Your task to perform on an android device: open app "The Home Depot" (install if not already installed) Image 0: 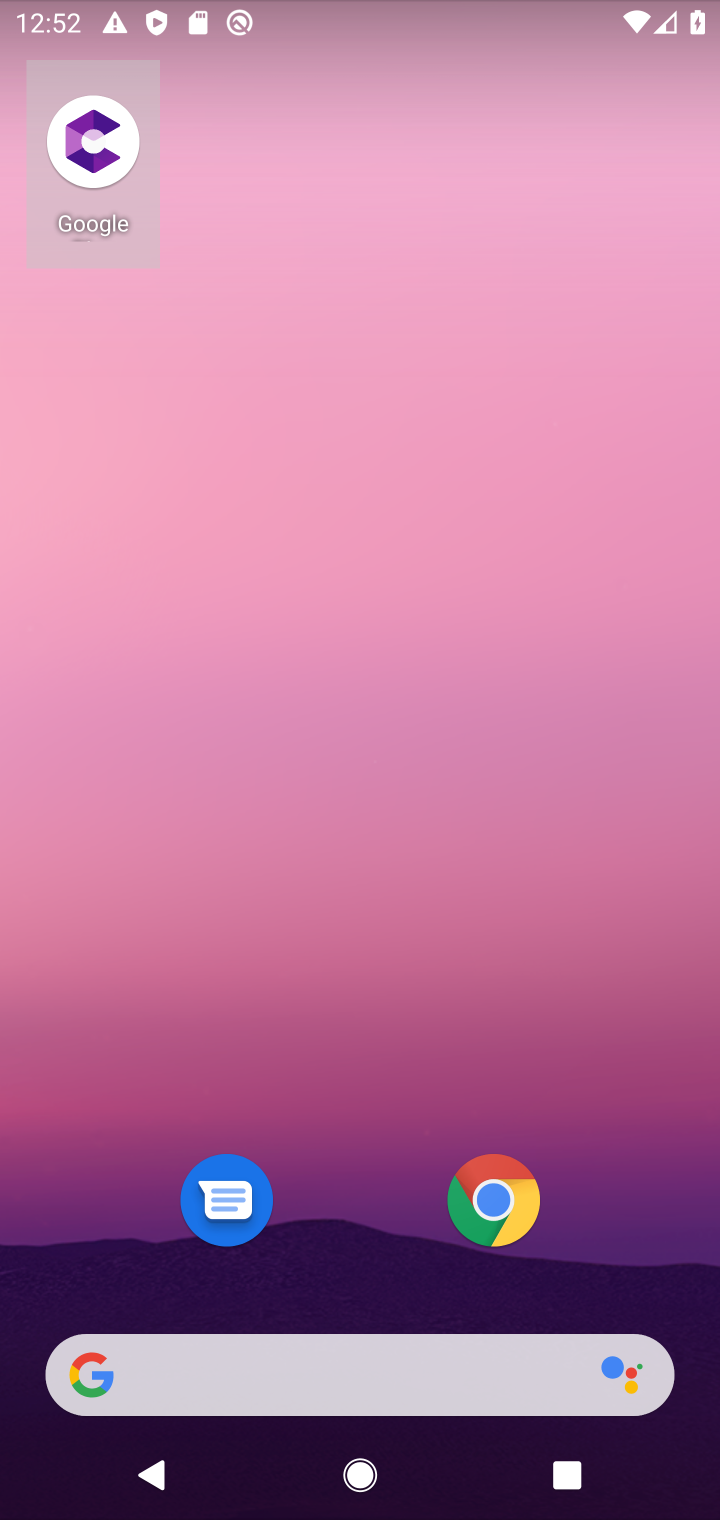
Step 0: drag from (668, 569) to (701, 69)
Your task to perform on an android device: open app "The Home Depot" (install if not already installed) Image 1: 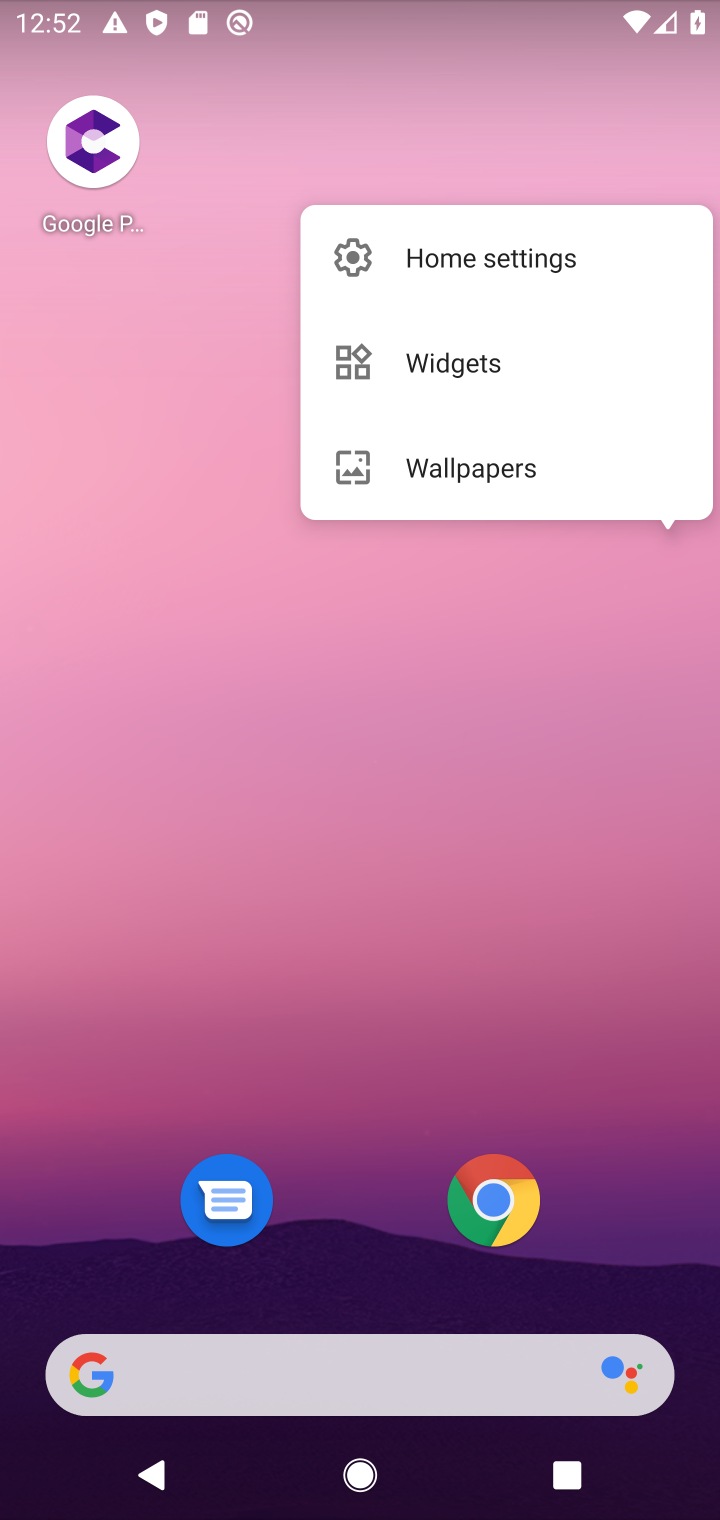
Step 1: click (621, 1060)
Your task to perform on an android device: open app "The Home Depot" (install if not already installed) Image 2: 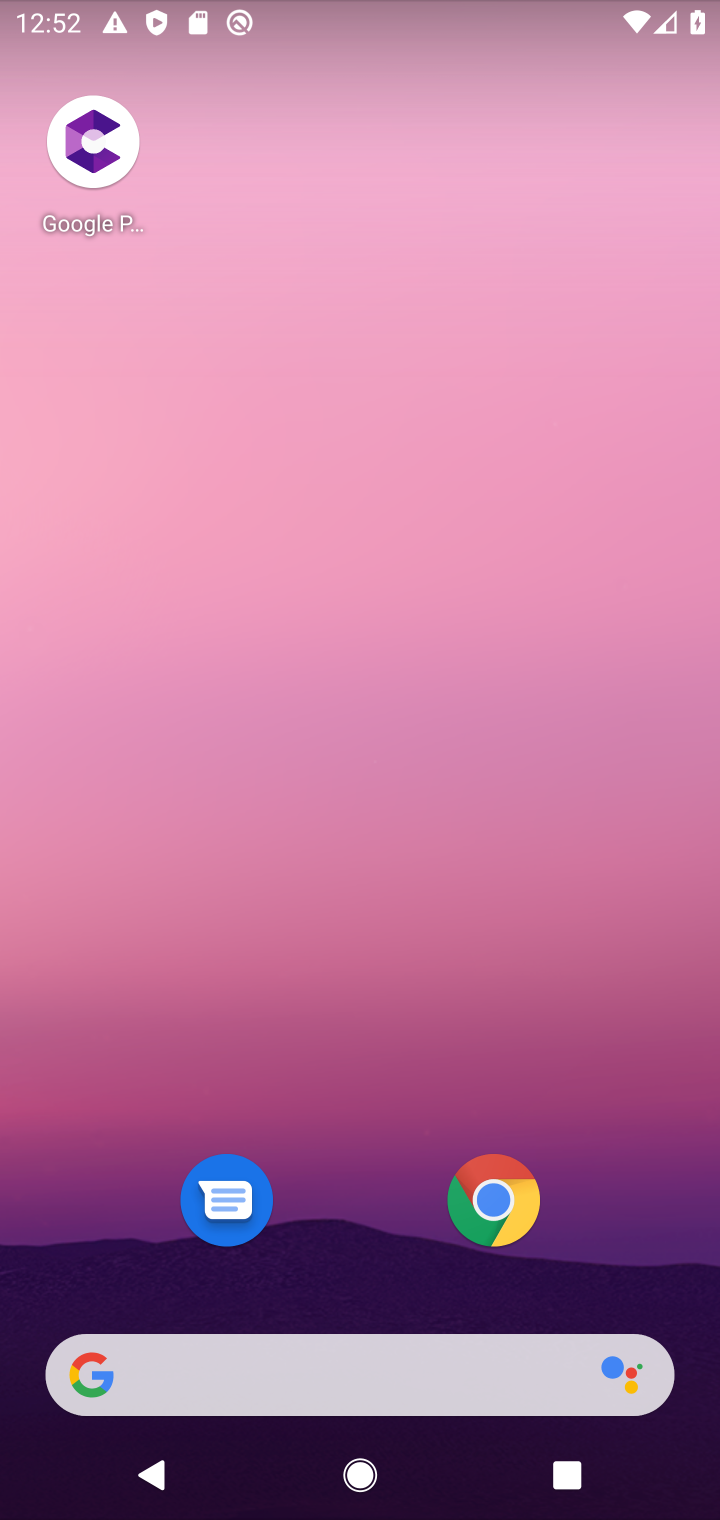
Step 2: drag from (625, 1160) to (599, 61)
Your task to perform on an android device: open app "The Home Depot" (install if not already installed) Image 3: 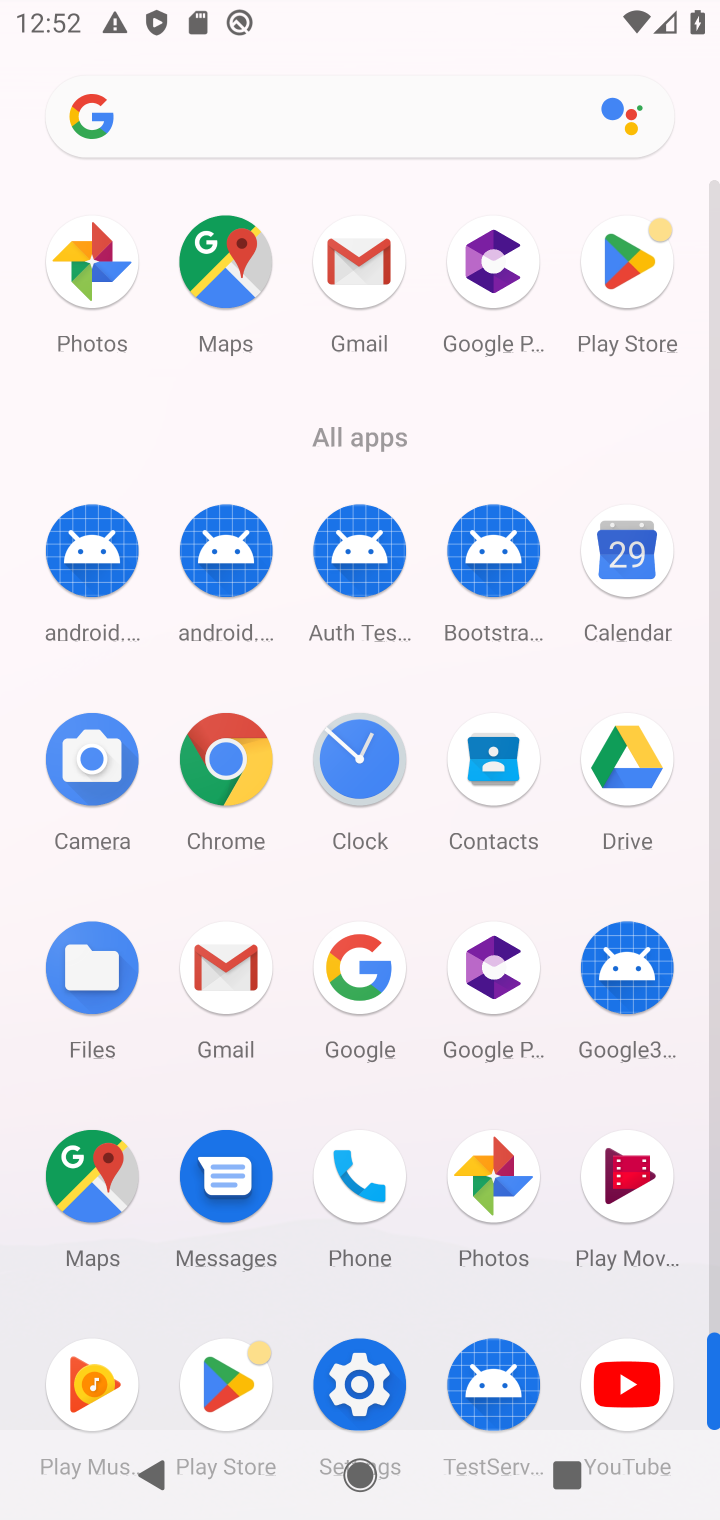
Step 3: click (628, 267)
Your task to perform on an android device: open app "The Home Depot" (install if not already installed) Image 4: 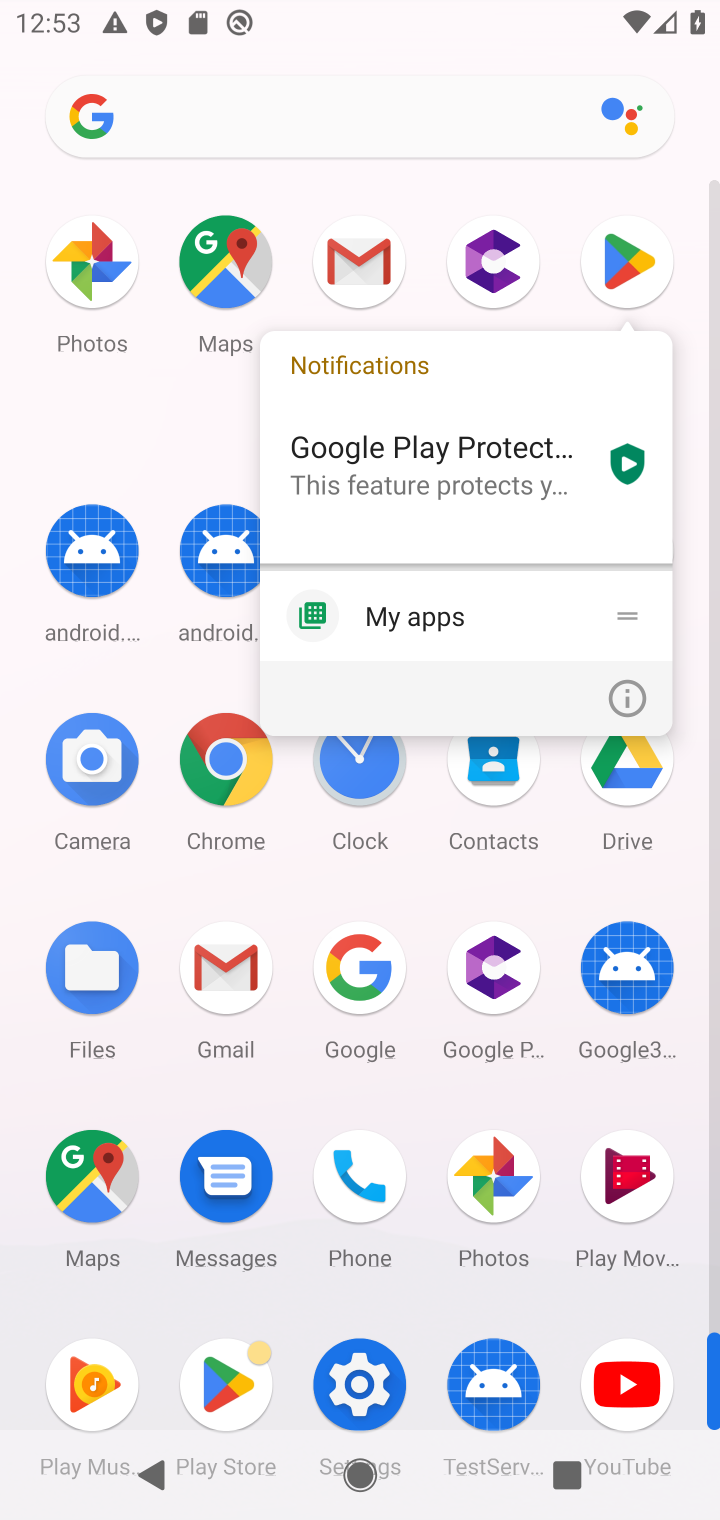
Step 4: click (613, 243)
Your task to perform on an android device: open app "The Home Depot" (install if not already installed) Image 5: 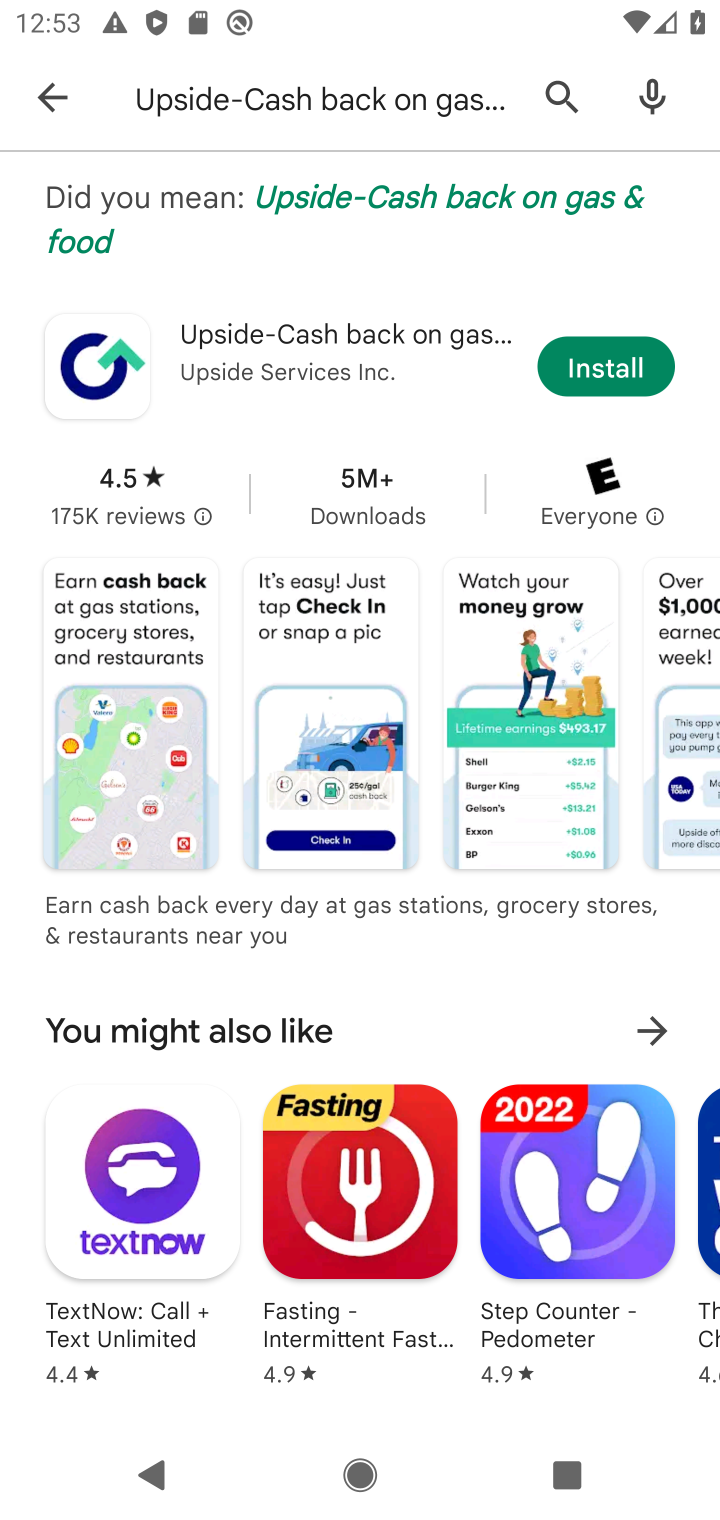
Step 5: click (384, 76)
Your task to perform on an android device: open app "The Home Depot" (install if not already installed) Image 6: 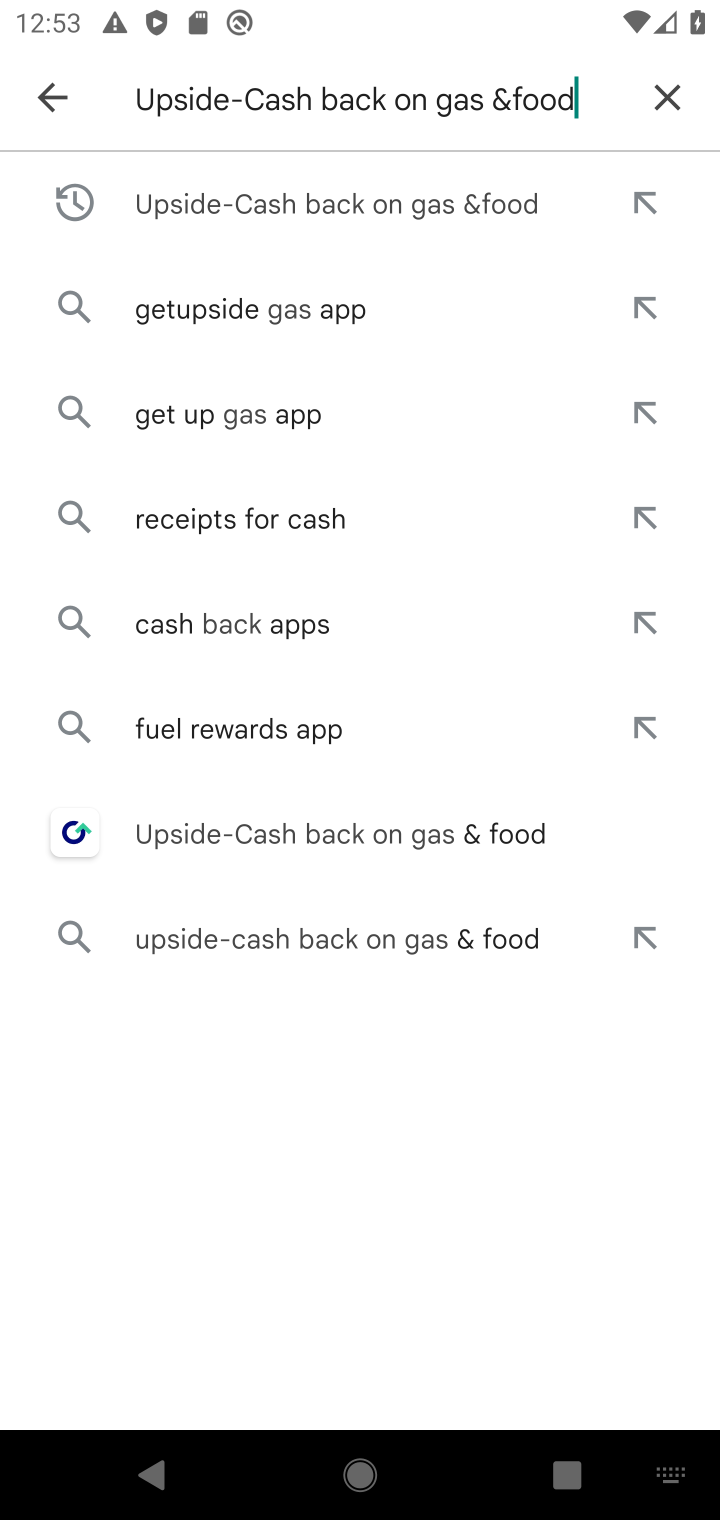
Step 6: click (669, 86)
Your task to perform on an android device: open app "The Home Depot" (install if not already installed) Image 7: 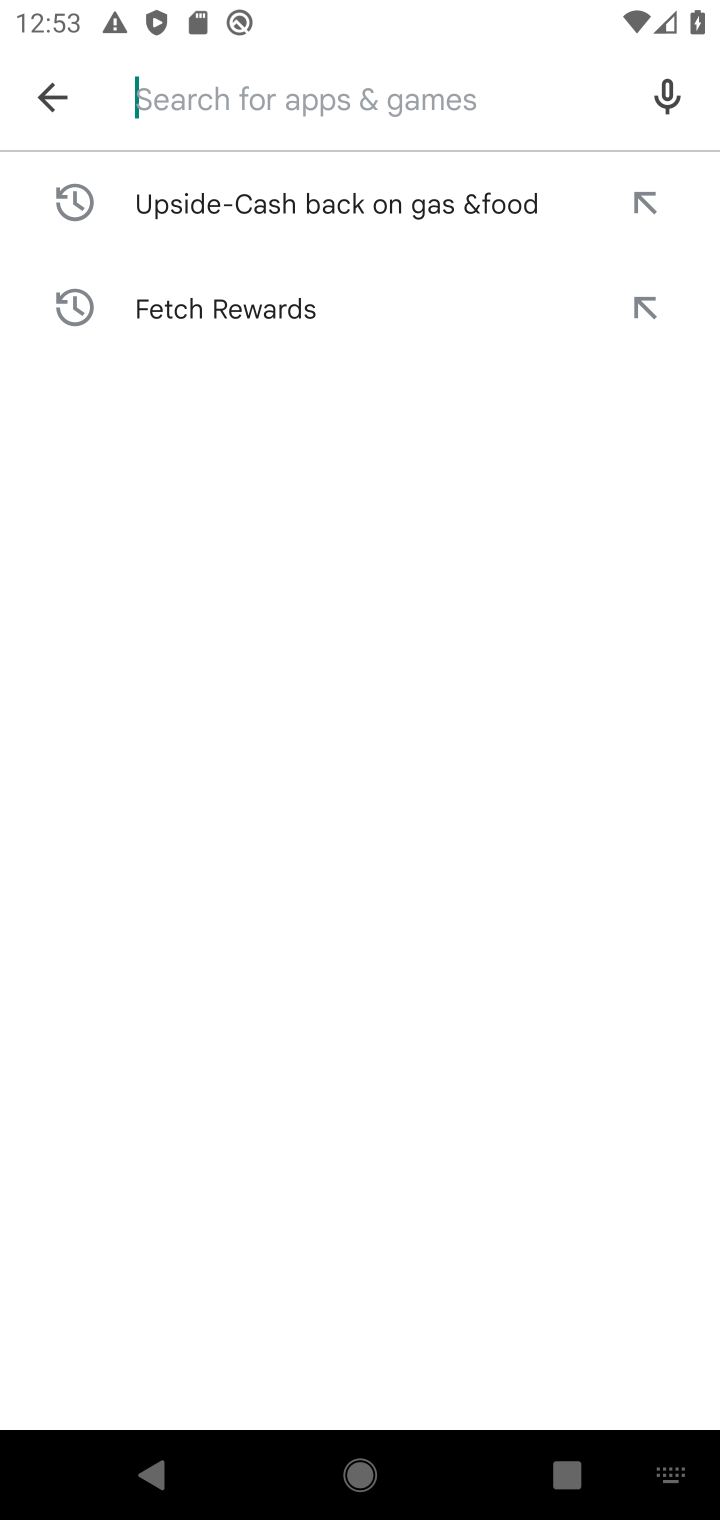
Step 7: type "The Home Depot"
Your task to perform on an android device: open app "The Home Depot" (install if not already installed) Image 8: 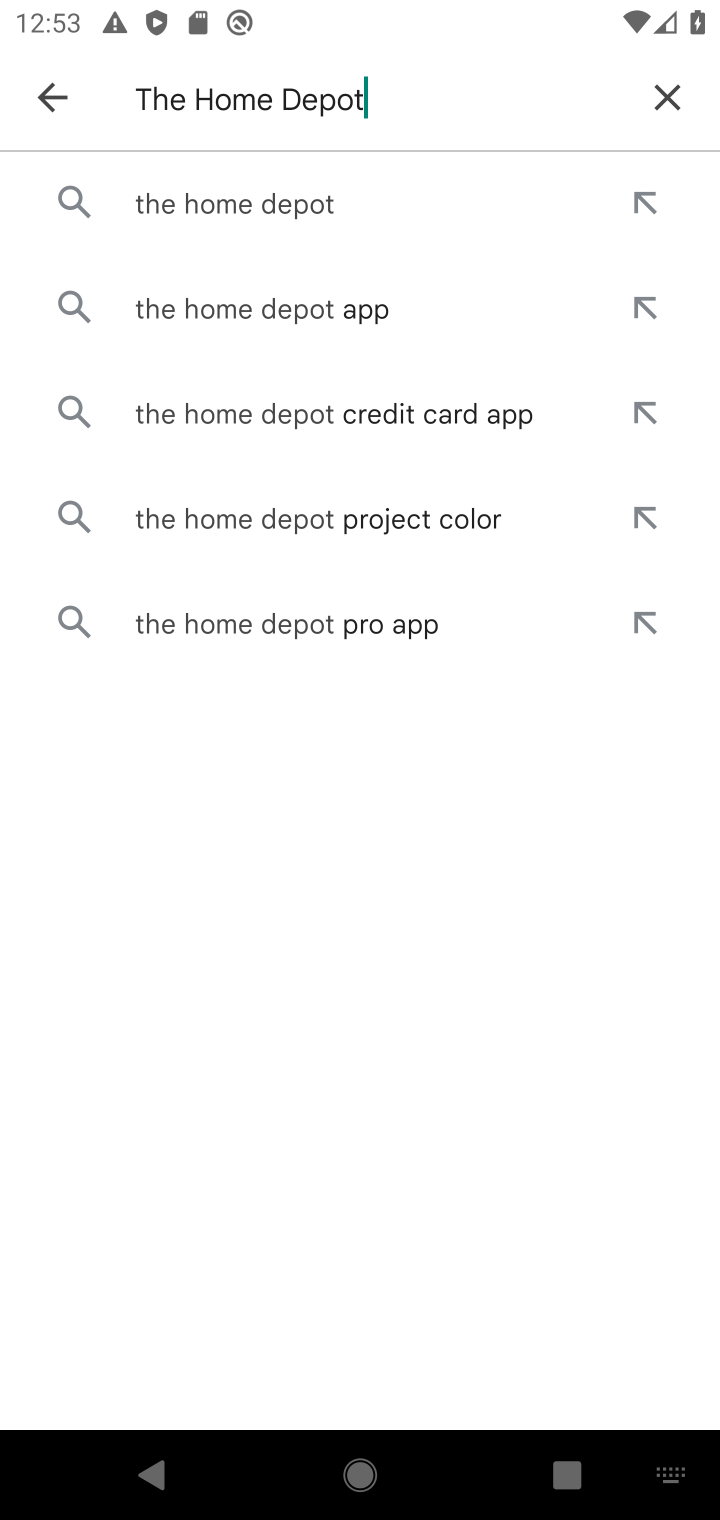
Step 8: press enter
Your task to perform on an android device: open app "The Home Depot" (install if not already installed) Image 9: 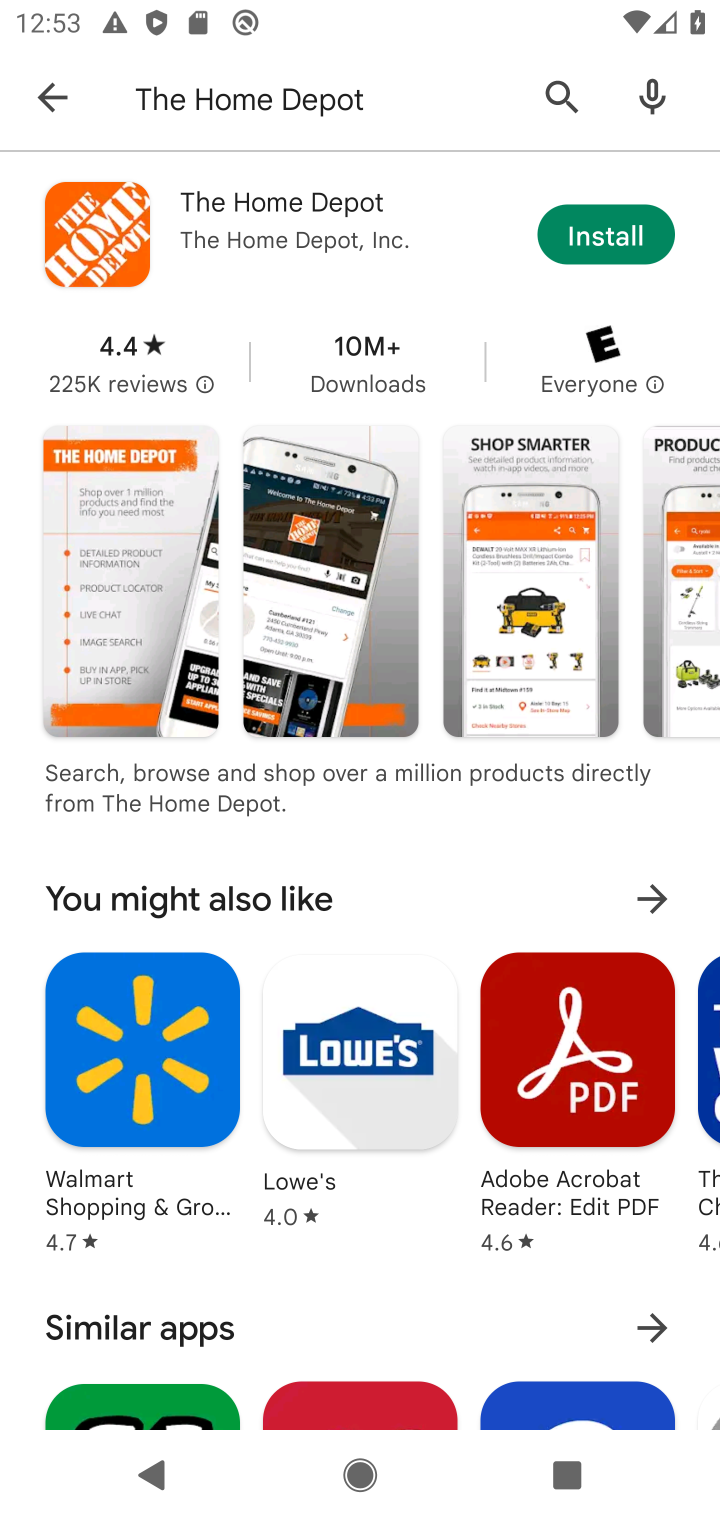
Step 9: click (587, 221)
Your task to perform on an android device: open app "The Home Depot" (install if not already installed) Image 10: 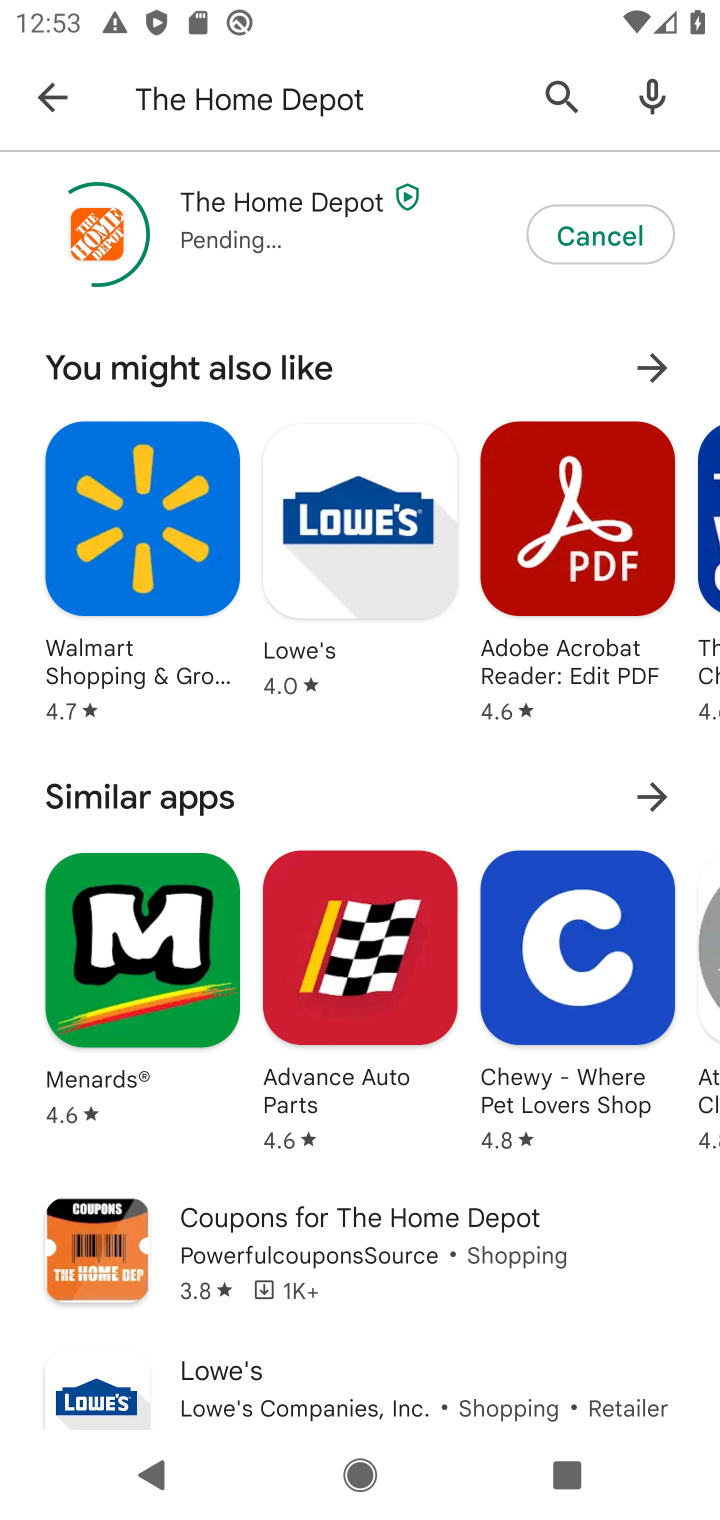
Step 10: click (318, 248)
Your task to perform on an android device: open app "The Home Depot" (install if not already installed) Image 11: 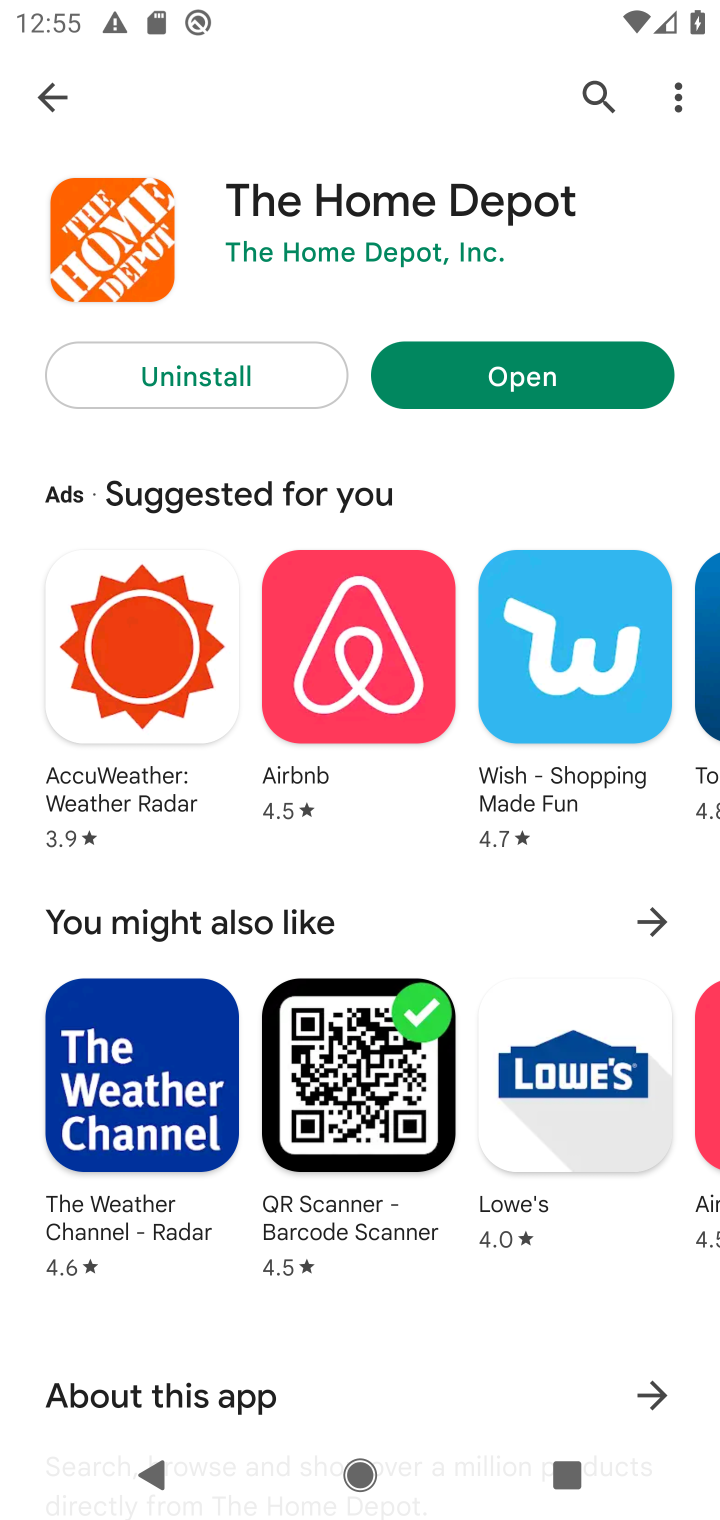
Step 11: click (604, 353)
Your task to perform on an android device: open app "The Home Depot" (install if not already installed) Image 12: 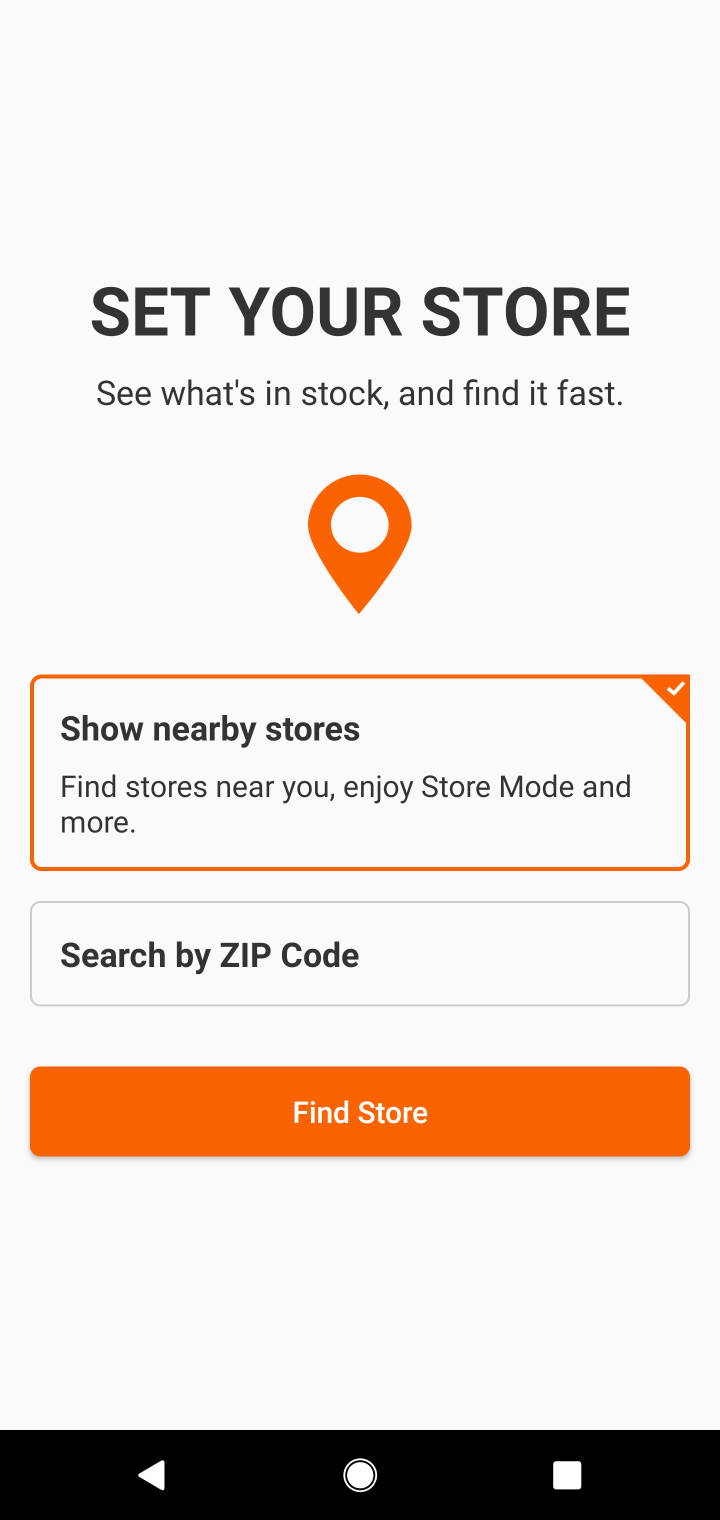
Step 12: task complete